Your task to perform on an android device: find which apps use the phone's location Image 0: 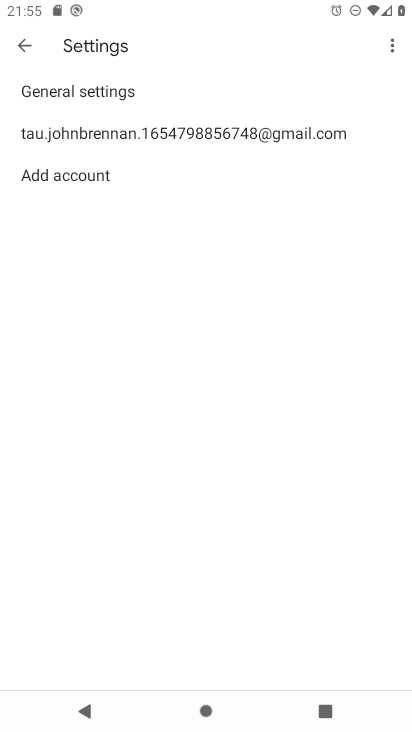
Step 0: press home button
Your task to perform on an android device: find which apps use the phone's location Image 1: 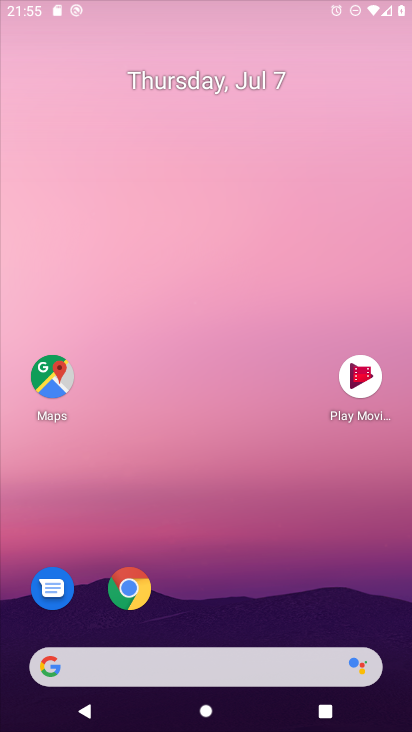
Step 1: drag from (237, 577) to (235, 373)
Your task to perform on an android device: find which apps use the phone's location Image 2: 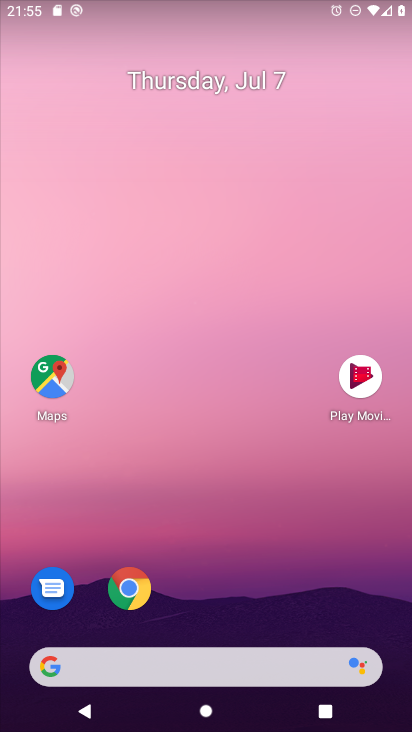
Step 2: drag from (214, 696) to (207, 206)
Your task to perform on an android device: find which apps use the phone's location Image 3: 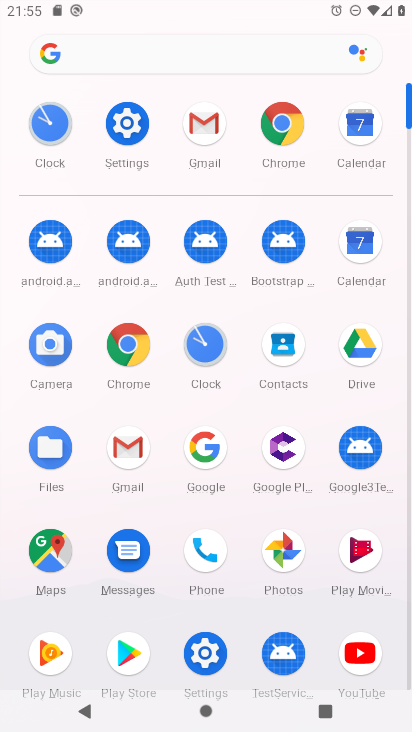
Step 3: click (122, 108)
Your task to perform on an android device: find which apps use the phone's location Image 4: 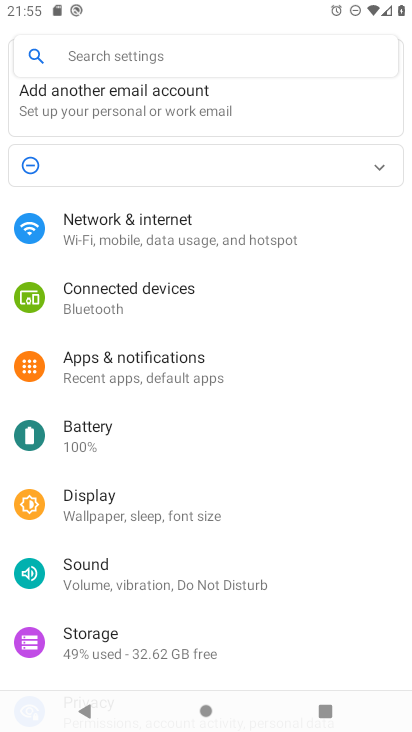
Step 4: drag from (137, 598) to (212, 239)
Your task to perform on an android device: find which apps use the phone's location Image 5: 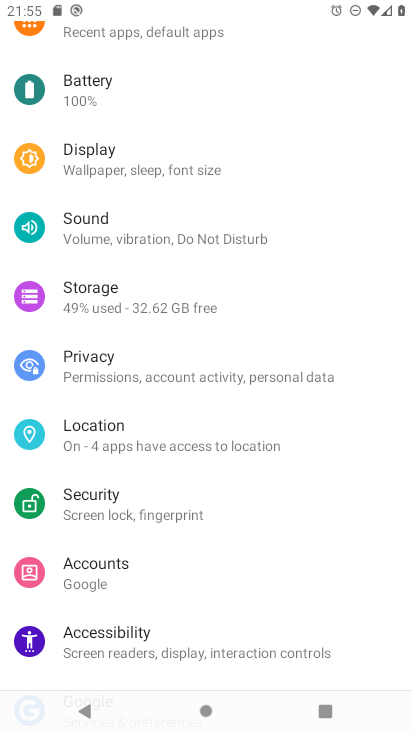
Step 5: click (130, 427)
Your task to perform on an android device: find which apps use the phone's location Image 6: 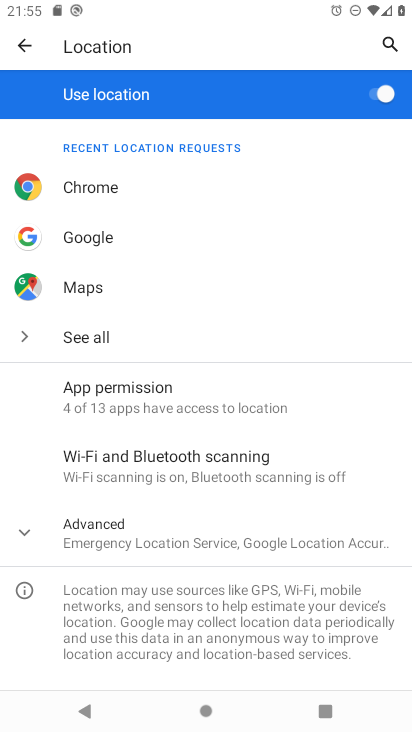
Step 6: task complete